Your task to perform on an android device: Search for Mexican restaurants on Maps Image 0: 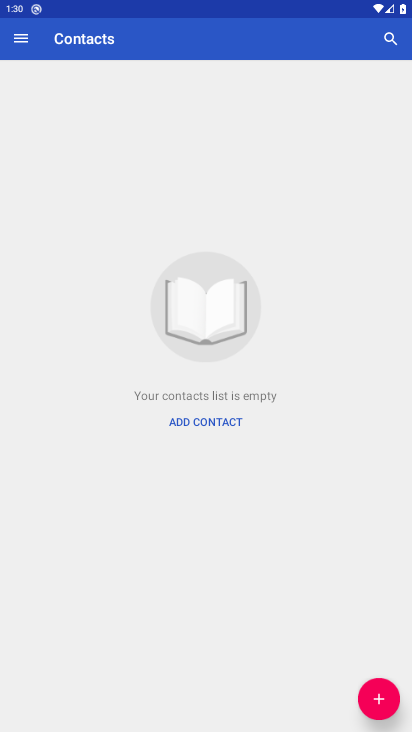
Step 0: press home button
Your task to perform on an android device: Search for Mexican restaurants on Maps Image 1: 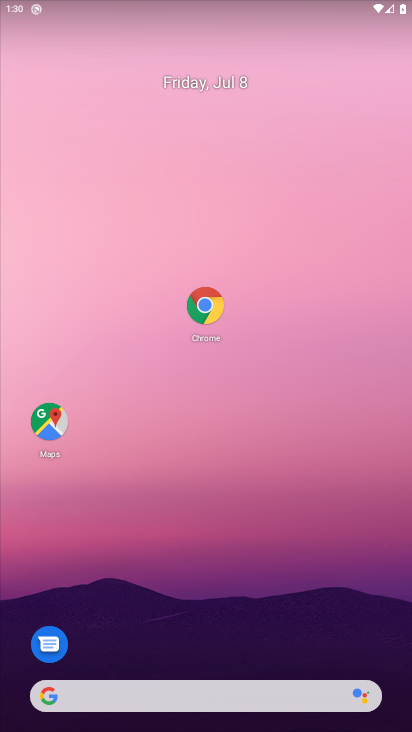
Step 1: drag from (158, 673) to (145, 334)
Your task to perform on an android device: Search for Mexican restaurants on Maps Image 2: 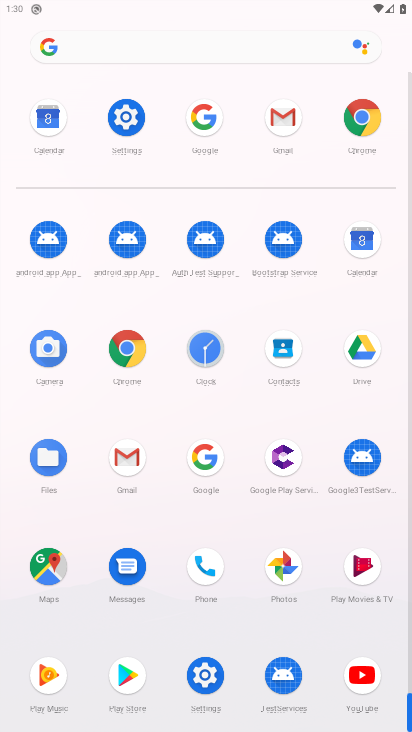
Step 2: click (62, 568)
Your task to perform on an android device: Search for Mexican restaurants on Maps Image 3: 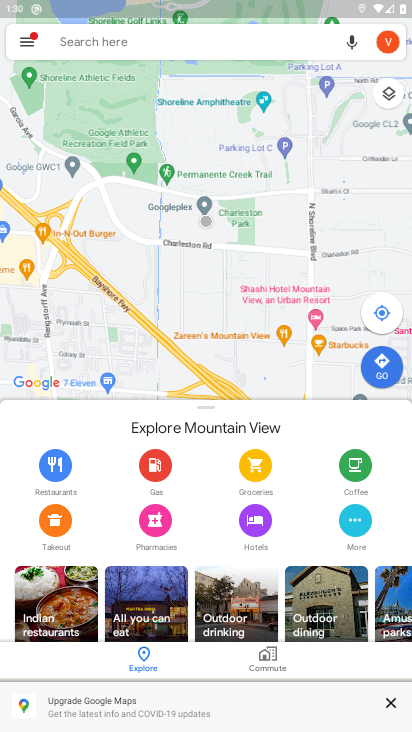
Step 3: click (130, 37)
Your task to perform on an android device: Search for Mexican restaurants on Maps Image 4: 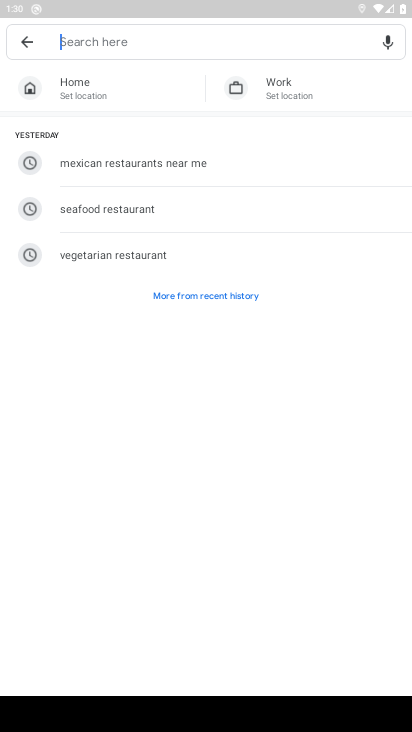
Step 4: click (158, 164)
Your task to perform on an android device: Search for Mexican restaurants on Maps Image 5: 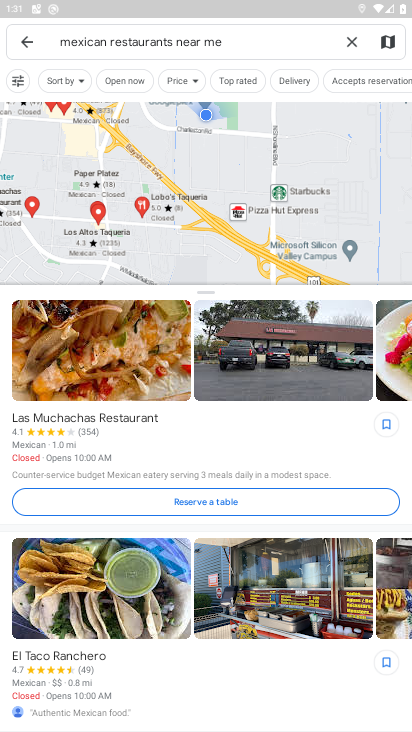
Step 5: task complete